Your task to perform on an android device: open a bookmark in the chrome app Image 0: 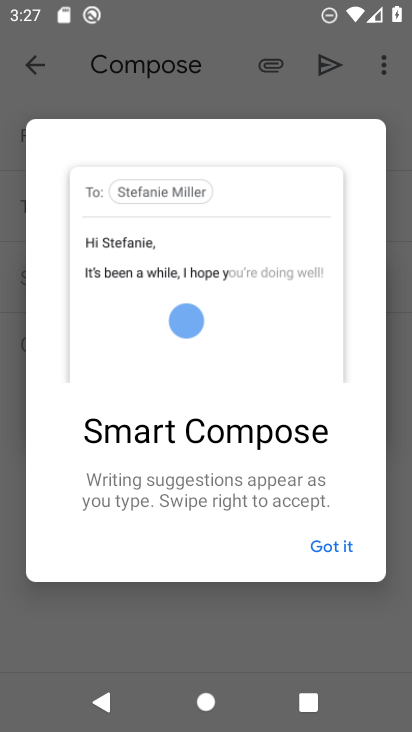
Step 0: press home button
Your task to perform on an android device: open a bookmark in the chrome app Image 1: 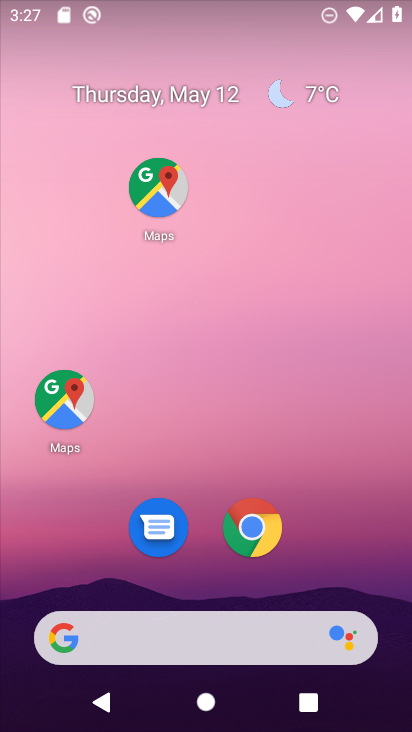
Step 1: click (258, 519)
Your task to perform on an android device: open a bookmark in the chrome app Image 2: 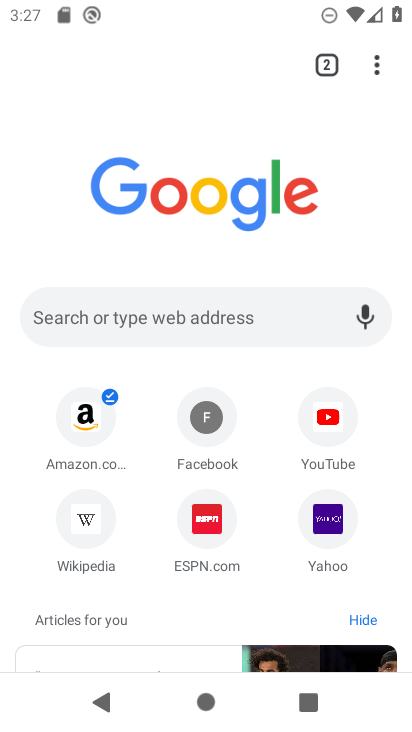
Step 2: click (367, 72)
Your task to perform on an android device: open a bookmark in the chrome app Image 3: 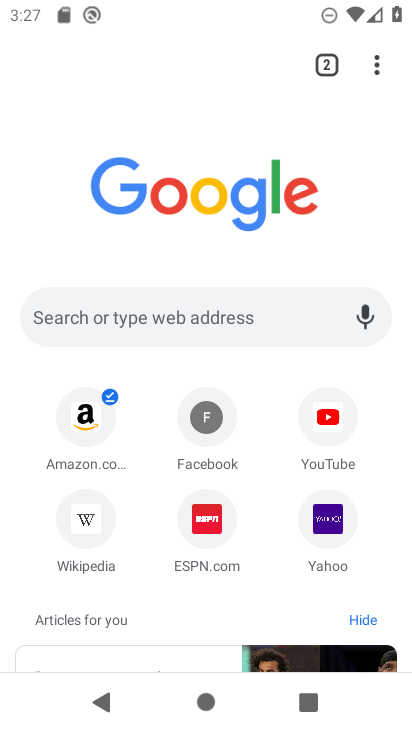
Step 3: task complete